Your task to perform on an android device: What is the recent news? Image 0: 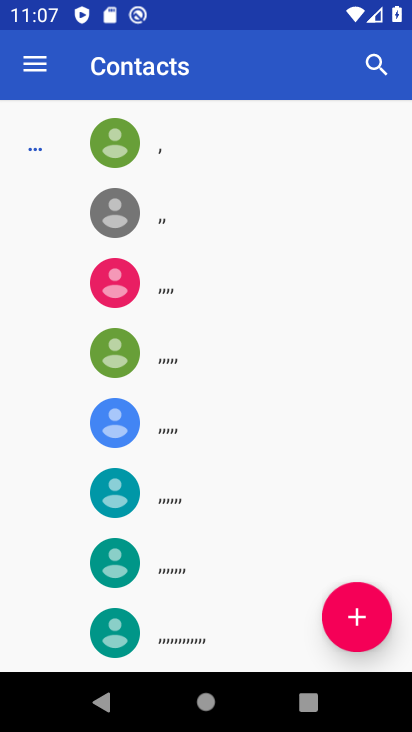
Step 0: press home button
Your task to perform on an android device: What is the recent news? Image 1: 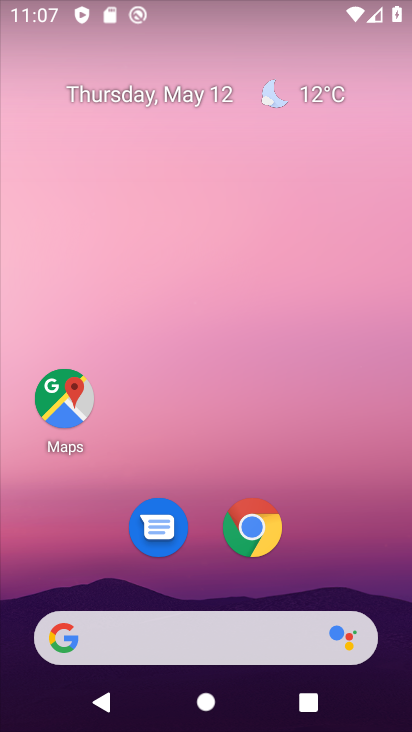
Step 1: click (180, 650)
Your task to perform on an android device: What is the recent news? Image 2: 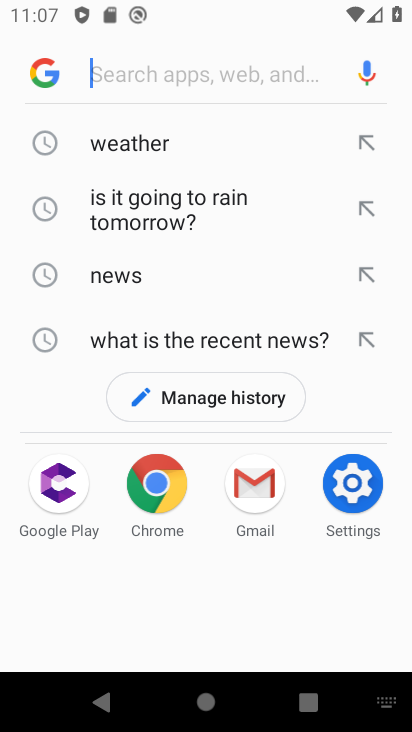
Step 2: click (151, 279)
Your task to perform on an android device: What is the recent news? Image 3: 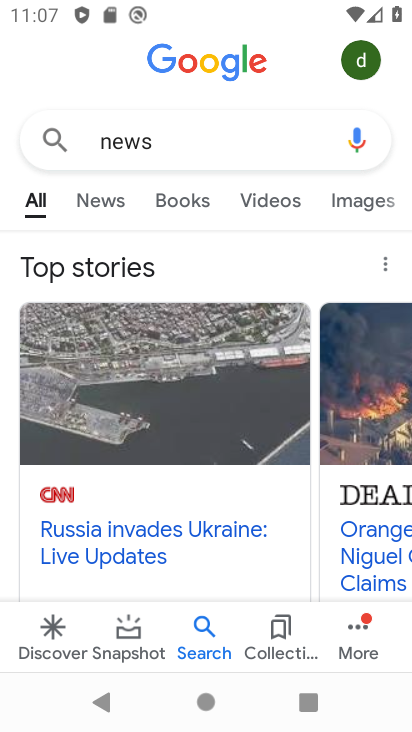
Step 3: task complete